Your task to perform on an android device: Open ESPN.com Image 0: 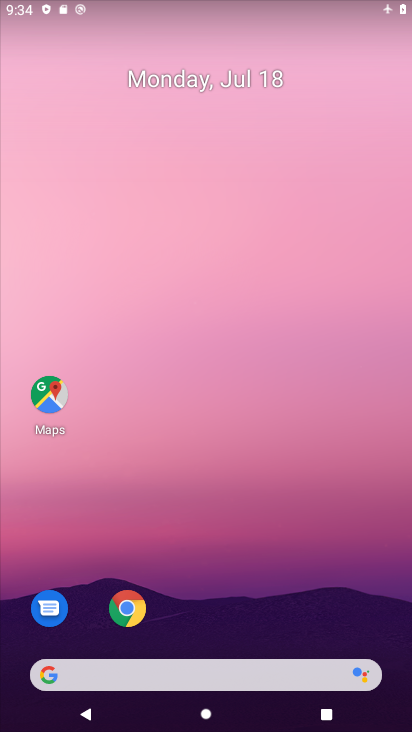
Step 0: drag from (234, 677) to (193, 48)
Your task to perform on an android device: Open ESPN.com Image 1: 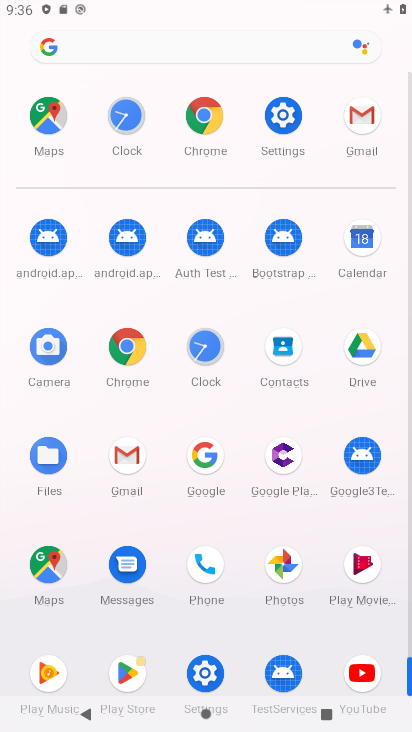
Step 1: click (189, 112)
Your task to perform on an android device: Open ESPN.com Image 2: 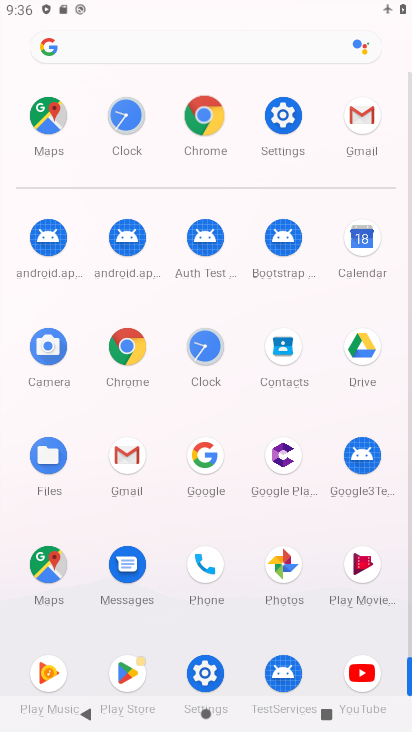
Step 2: click (207, 121)
Your task to perform on an android device: Open ESPN.com Image 3: 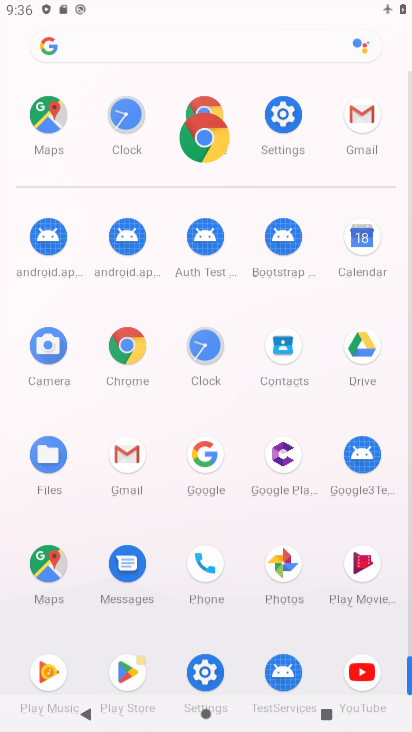
Step 3: click (210, 128)
Your task to perform on an android device: Open ESPN.com Image 4: 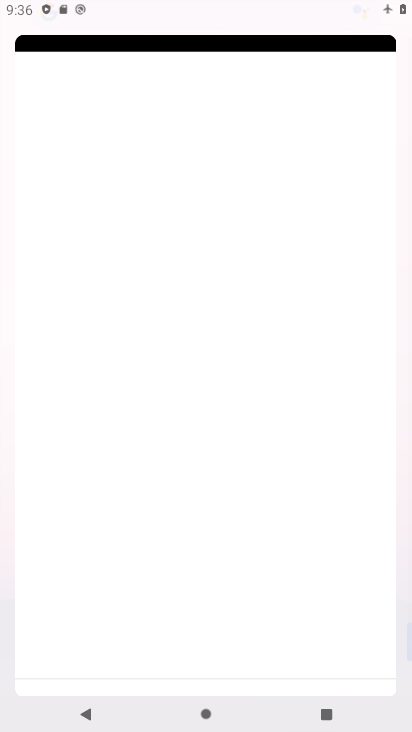
Step 4: click (208, 129)
Your task to perform on an android device: Open ESPN.com Image 5: 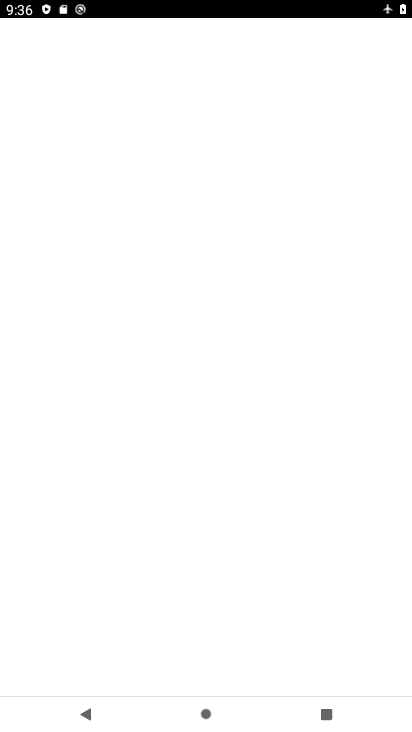
Step 5: click (210, 106)
Your task to perform on an android device: Open ESPN.com Image 6: 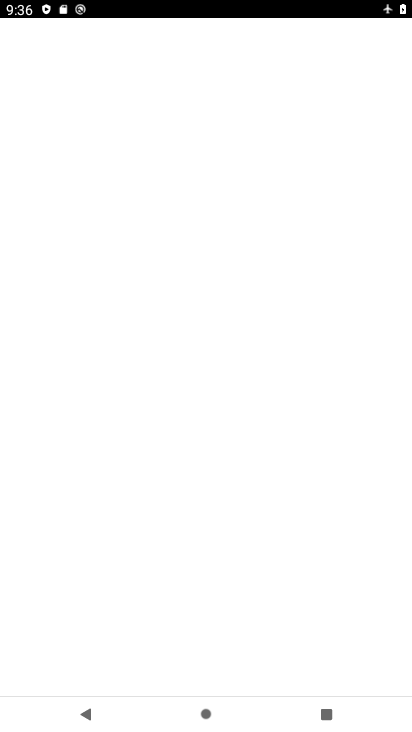
Step 6: click (212, 108)
Your task to perform on an android device: Open ESPN.com Image 7: 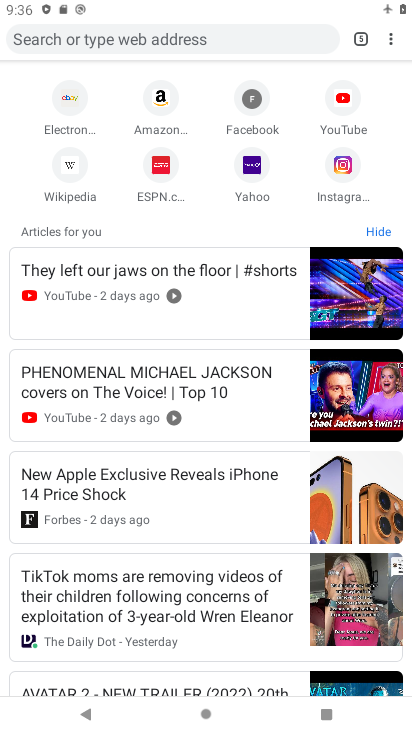
Step 7: click (164, 183)
Your task to perform on an android device: Open ESPN.com Image 8: 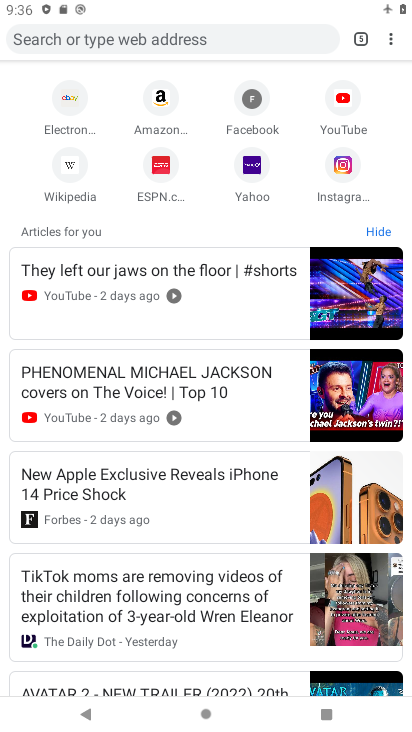
Step 8: click (164, 181)
Your task to perform on an android device: Open ESPN.com Image 9: 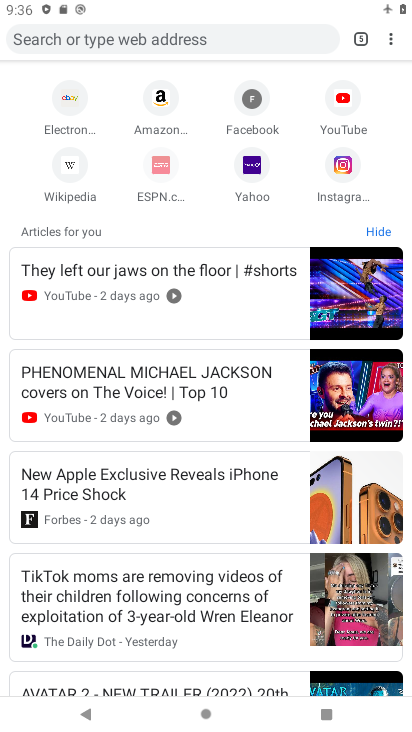
Step 9: click (166, 180)
Your task to perform on an android device: Open ESPN.com Image 10: 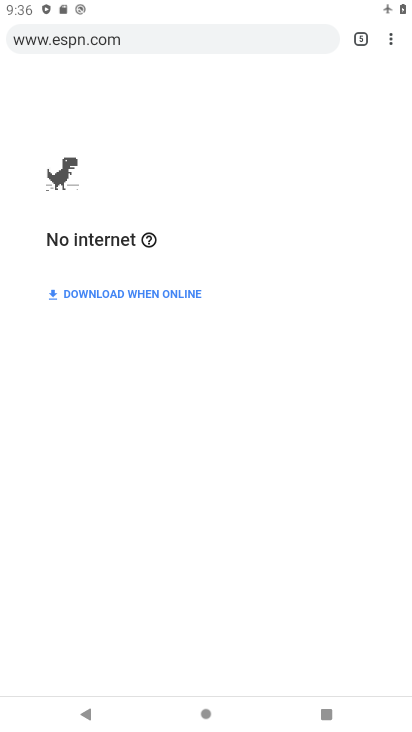
Step 10: task complete